Your task to perform on an android device: Go to calendar. Show me events next week Image 0: 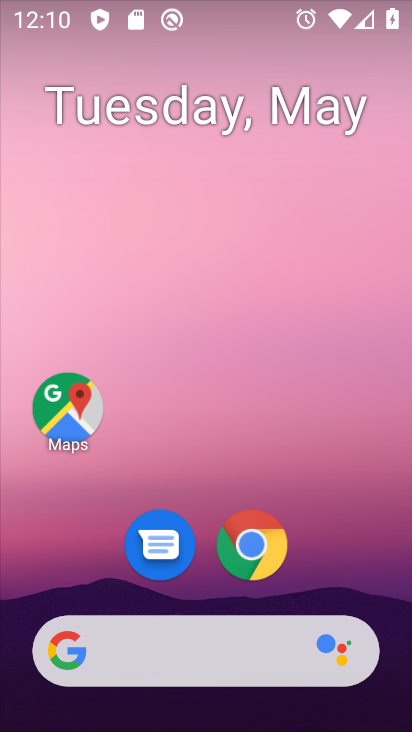
Step 0: drag from (305, 394) to (305, 321)
Your task to perform on an android device: Go to calendar. Show me events next week Image 1: 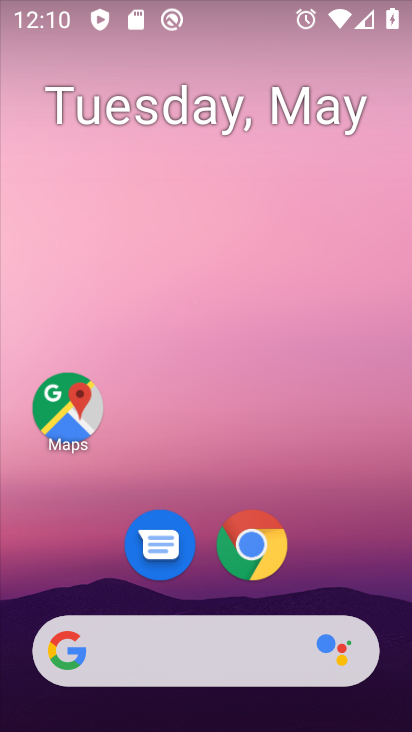
Step 1: drag from (339, 558) to (308, 204)
Your task to perform on an android device: Go to calendar. Show me events next week Image 2: 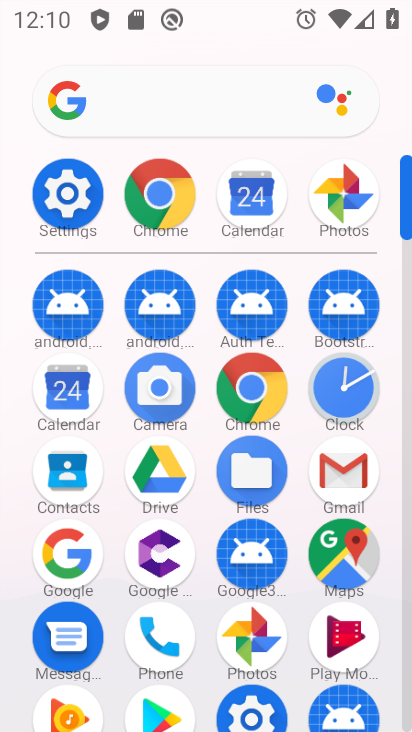
Step 2: click (229, 199)
Your task to perform on an android device: Go to calendar. Show me events next week Image 3: 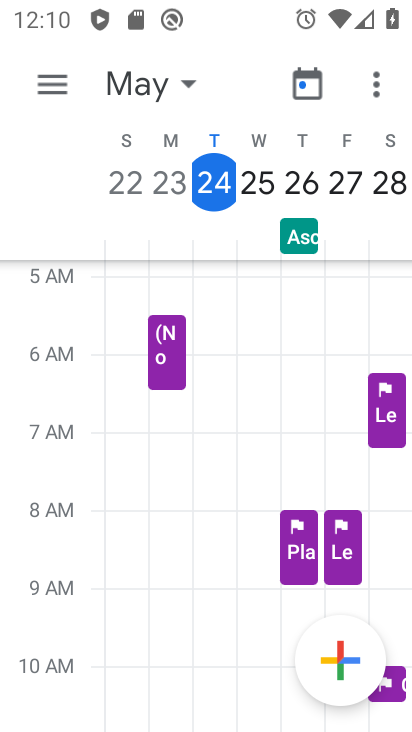
Step 3: task complete